Your task to perform on an android device: Show me some nice wallpapers for my laptop Image 0: 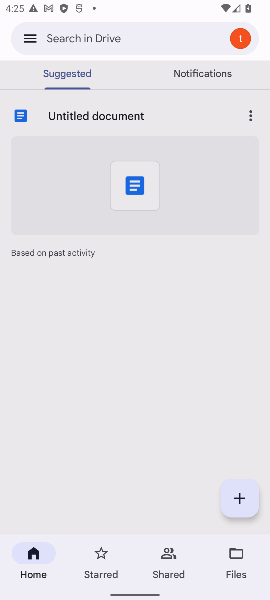
Step 0: press home button
Your task to perform on an android device: Show me some nice wallpapers for my laptop Image 1: 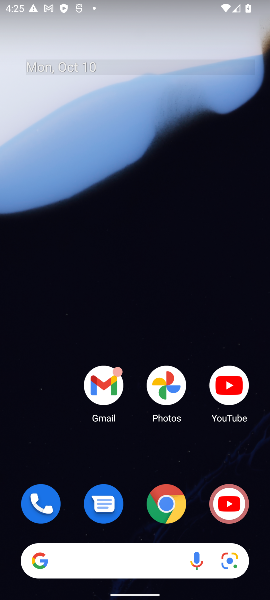
Step 1: drag from (140, 492) to (107, 208)
Your task to perform on an android device: Show me some nice wallpapers for my laptop Image 2: 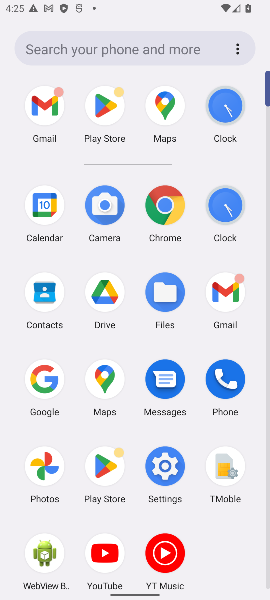
Step 2: click (174, 206)
Your task to perform on an android device: Show me some nice wallpapers for my laptop Image 3: 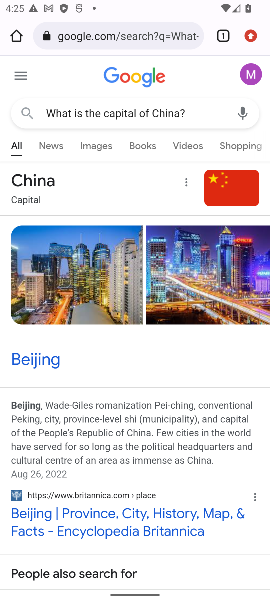
Step 3: click (153, 37)
Your task to perform on an android device: Show me some nice wallpapers for my laptop Image 4: 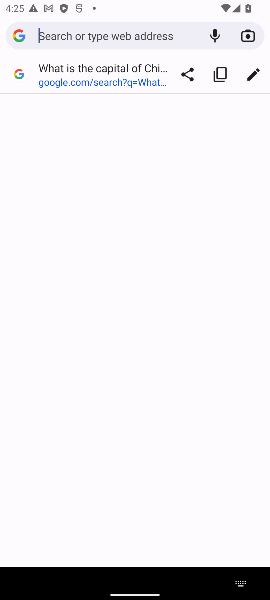
Step 4: type "Show me some nice wallpapers for my laptop"
Your task to perform on an android device: Show me some nice wallpapers for my laptop Image 5: 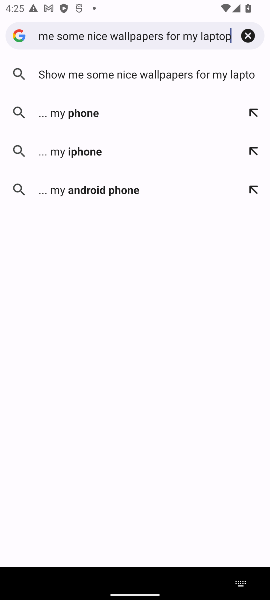
Step 5: press enter
Your task to perform on an android device: Show me some nice wallpapers for my laptop Image 6: 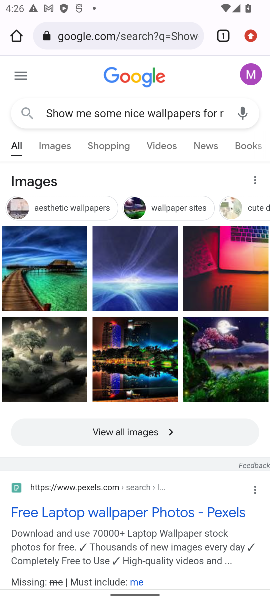
Step 6: press enter
Your task to perform on an android device: Show me some nice wallpapers for my laptop Image 7: 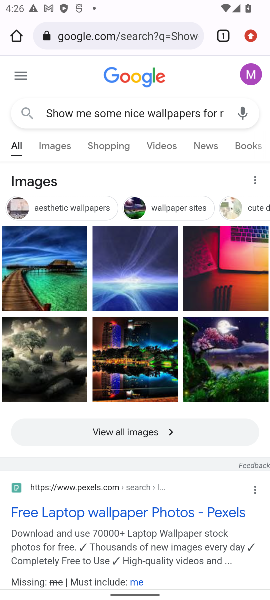
Step 7: task complete